Your task to perform on an android device: make emails show in primary in the gmail app Image 0: 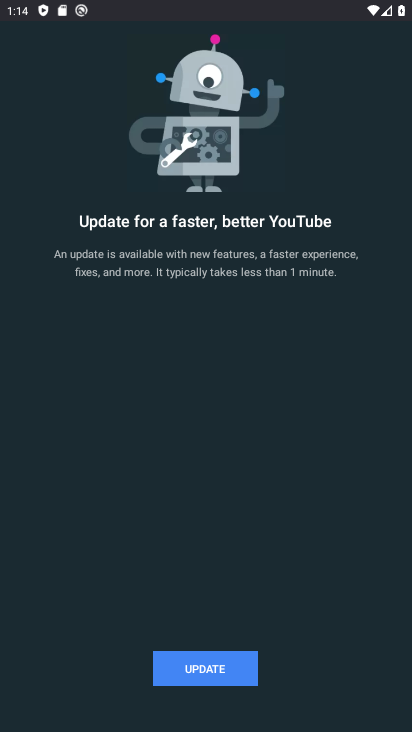
Step 0: click (253, 647)
Your task to perform on an android device: make emails show in primary in the gmail app Image 1: 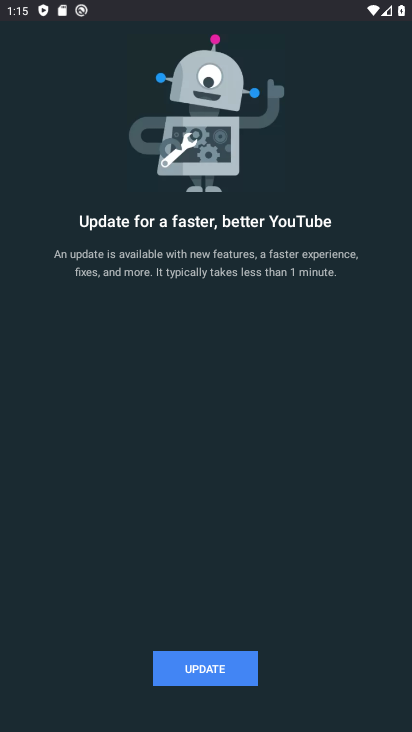
Step 1: click (167, 669)
Your task to perform on an android device: make emails show in primary in the gmail app Image 2: 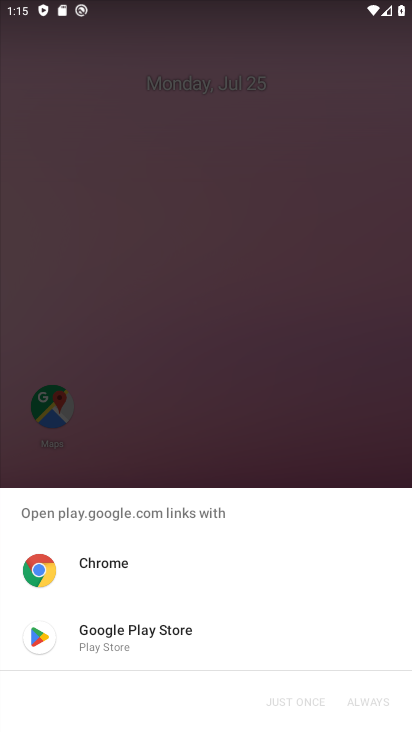
Step 2: click (229, 643)
Your task to perform on an android device: make emails show in primary in the gmail app Image 3: 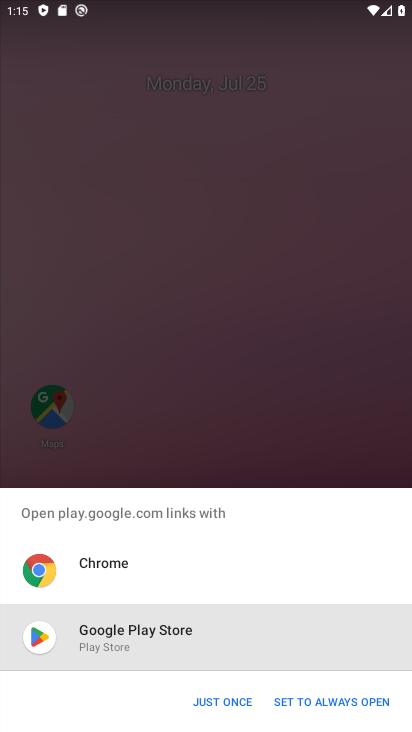
Step 3: click (234, 692)
Your task to perform on an android device: make emails show in primary in the gmail app Image 4: 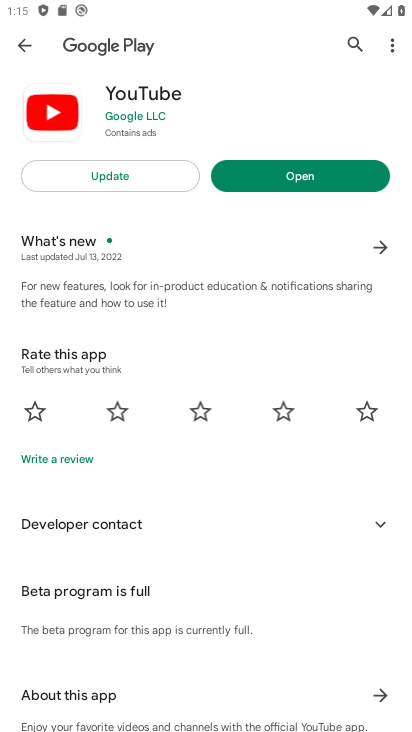
Step 4: task complete